Your task to perform on an android device: change the clock display to show seconds Image 0: 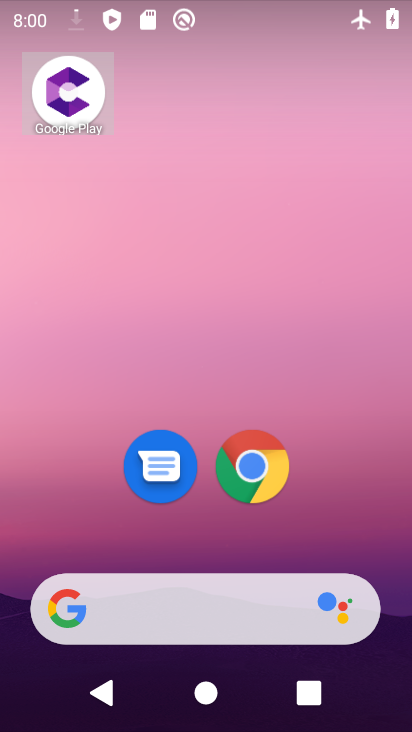
Step 0: drag from (389, 547) to (354, 114)
Your task to perform on an android device: change the clock display to show seconds Image 1: 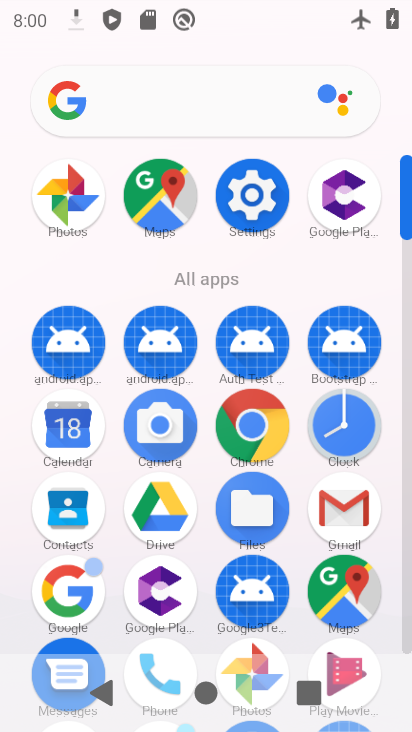
Step 1: click (403, 642)
Your task to perform on an android device: change the clock display to show seconds Image 2: 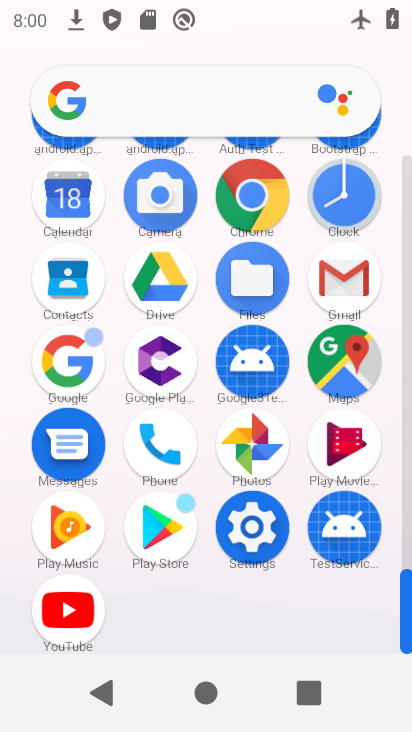
Step 2: click (342, 193)
Your task to perform on an android device: change the clock display to show seconds Image 3: 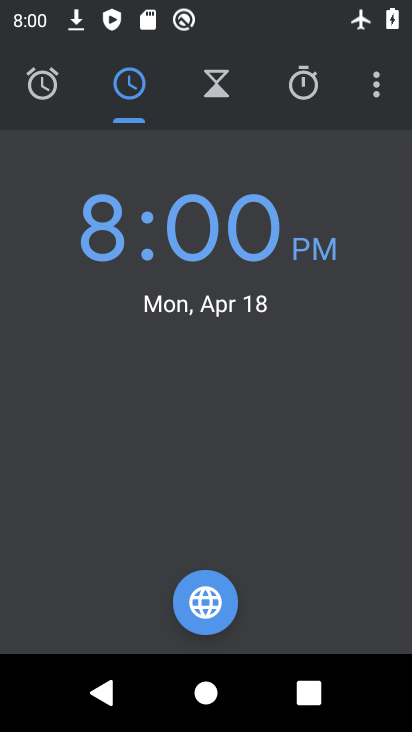
Step 3: click (372, 88)
Your task to perform on an android device: change the clock display to show seconds Image 4: 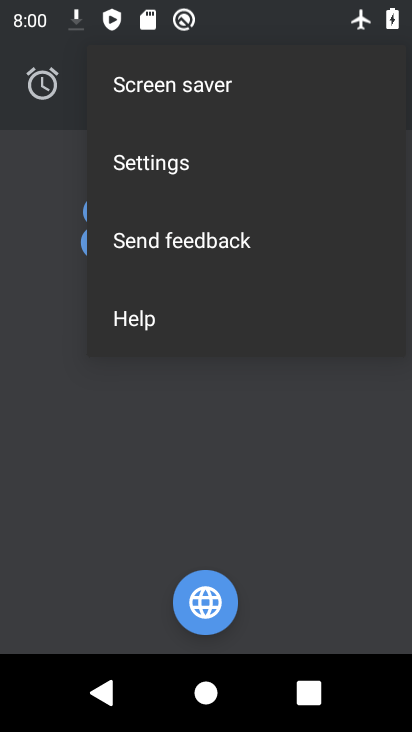
Step 4: click (155, 162)
Your task to perform on an android device: change the clock display to show seconds Image 5: 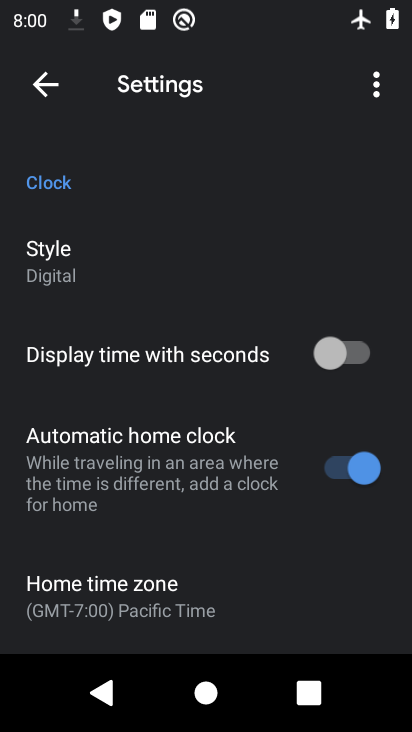
Step 5: click (341, 351)
Your task to perform on an android device: change the clock display to show seconds Image 6: 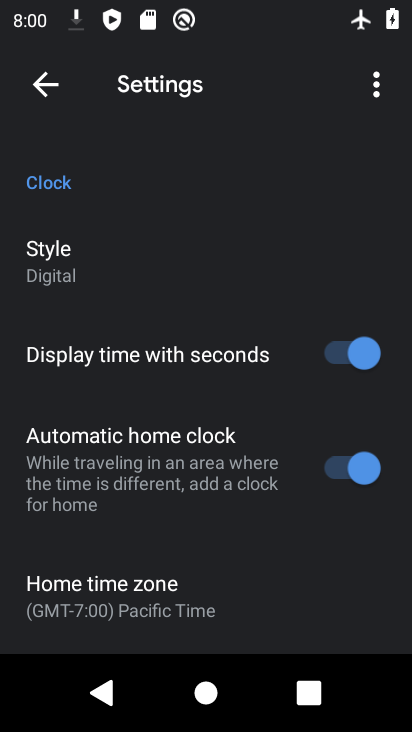
Step 6: task complete